Your task to perform on an android device: add a contact in the contacts app Image 0: 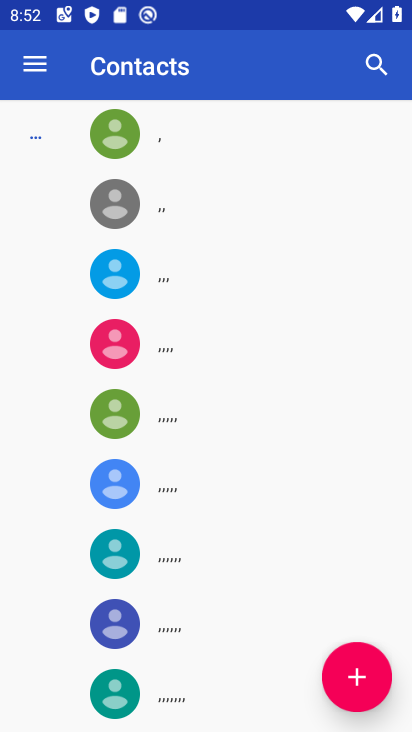
Step 0: press home button
Your task to perform on an android device: add a contact in the contacts app Image 1: 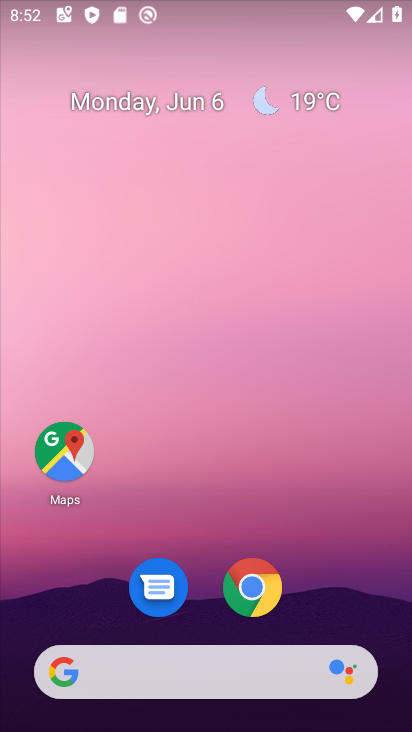
Step 1: drag from (203, 678) to (186, 216)
Your task to perform on an android device: add a contact in the contacts app Image 2: 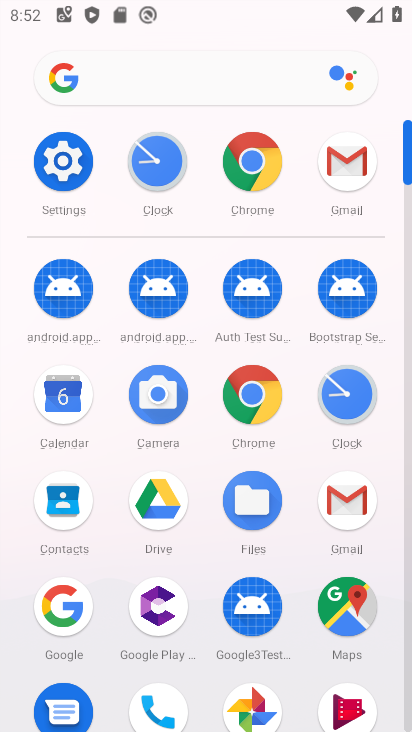
Step 2: click (60, 514)
Your task to perform on an android device: add a contact in the contacts app Image 3: 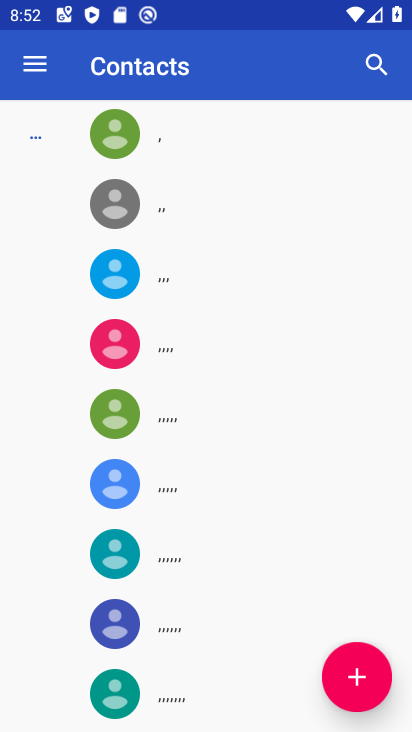
Step 3: click (355, 666)
Your task to perform on an android device: add a contact in the contacts app Image 4: 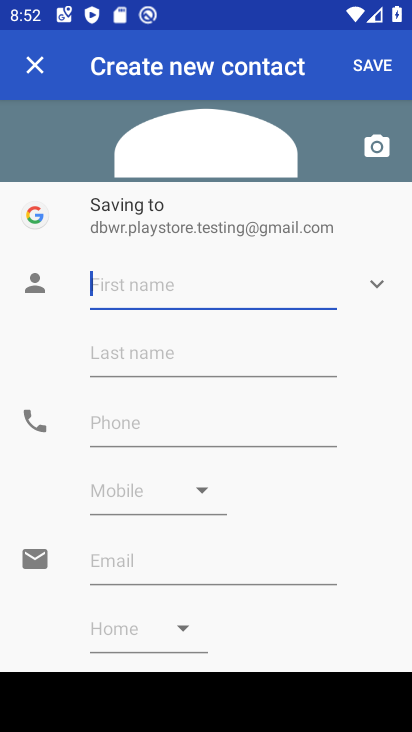
Step 4: type "xbcz"
Your task to perform on an android device: add a contact in the contacts app Image 5: 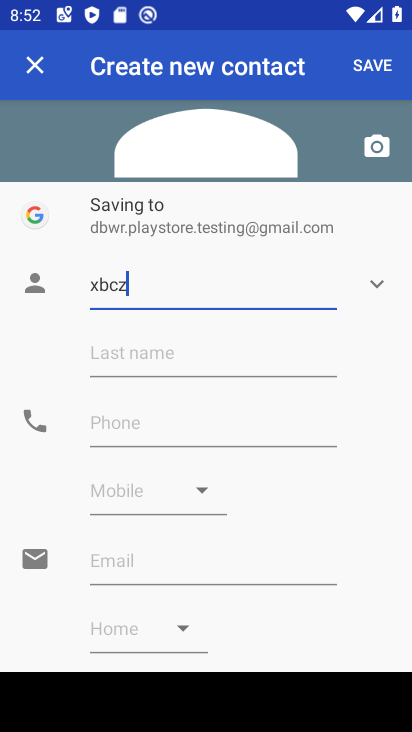
Step 5: click (184, 430)
Your task to perform on an android device: add a contact in the contacts app Image 6: 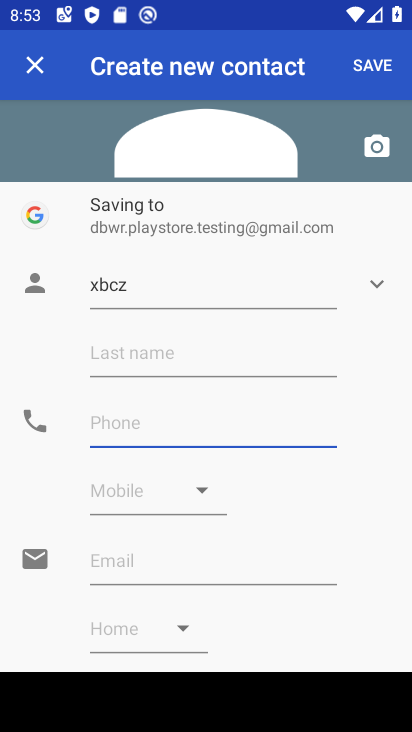
Step 6: type "298329"
Your task to perform on an android device: add a contact in the contacts app Image 7: 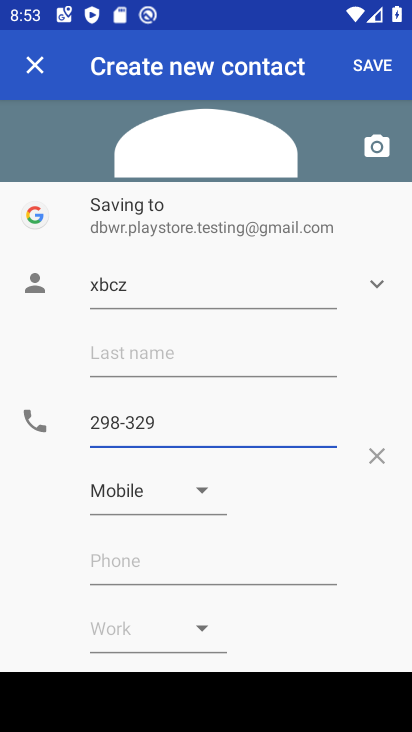
Step 7: click (377, 71)
Your task to perform on an android device: add a contact in the contacts app Image 8: 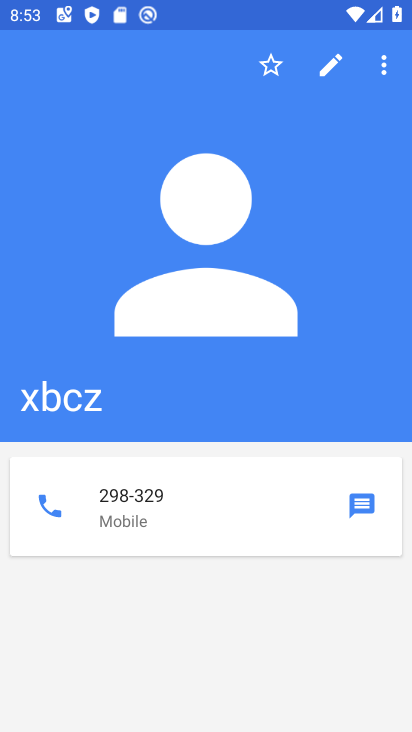
Step 8: task complete